Your task to perform on an android device: Go to settings Image 0: 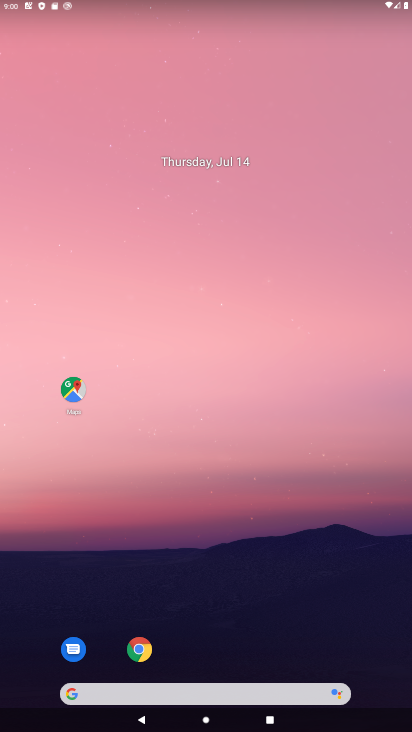
Step 0: drag from (335, 602) to (303, 66)
Your task to perform on an android device: Go to settings Image 1: 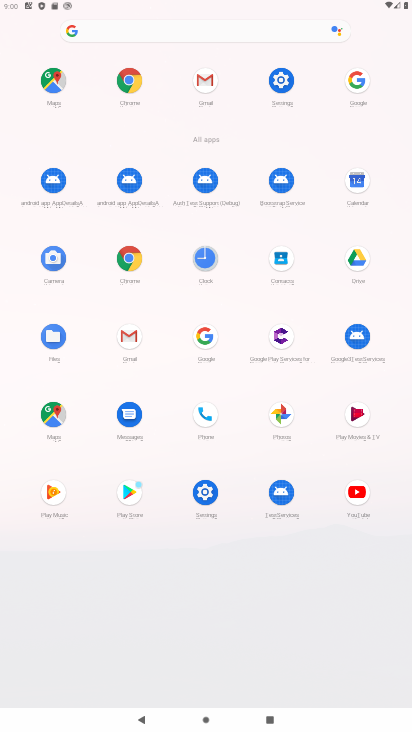
Step 1: click (280, 73)
Your task to perform on an android device: Go to settings Image 2: 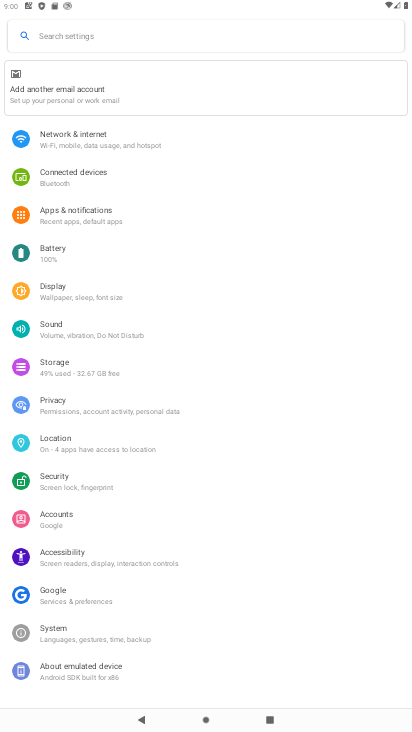
Step 2: task complete